Your task to perform on an android device: find which apps use the phone's location Image 0: 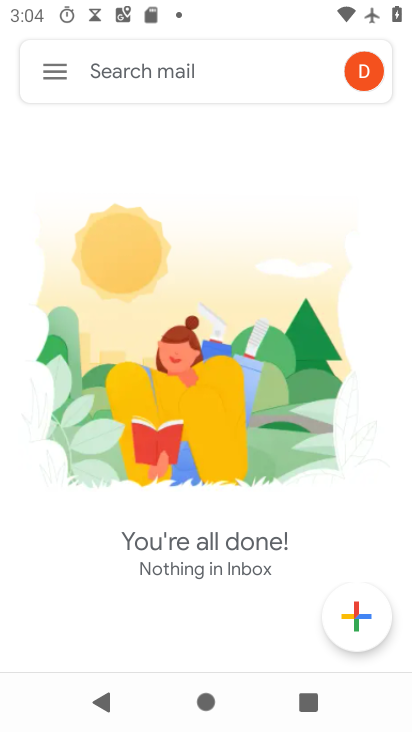
Step 0: press home button
Your task to perform on an android device: find which apps use the phone's location Image 1: 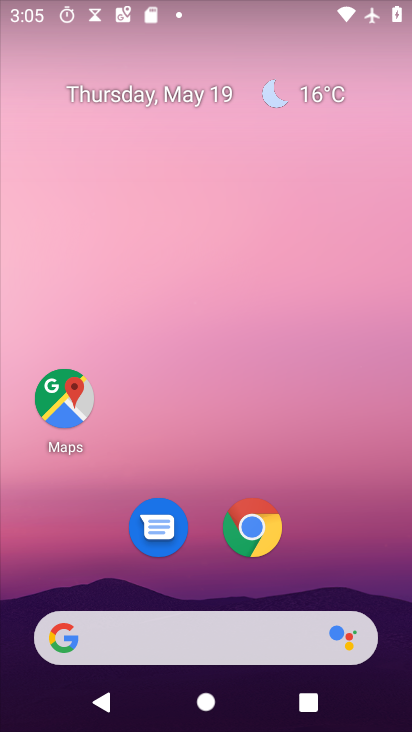
Step 1: drag from (329, 557) to (170, 16)
Your task to perform on an android device: find which apps use the phone's location Image 2: 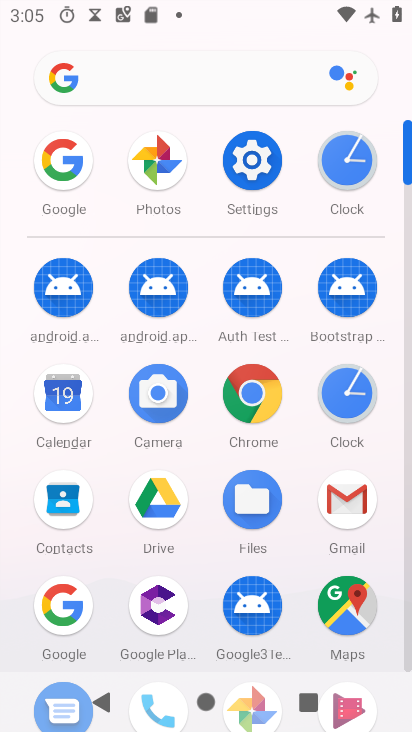
Step 2: click (257, 168)
Your task to perform on an android device: find which apps use the phone's location Image 3: 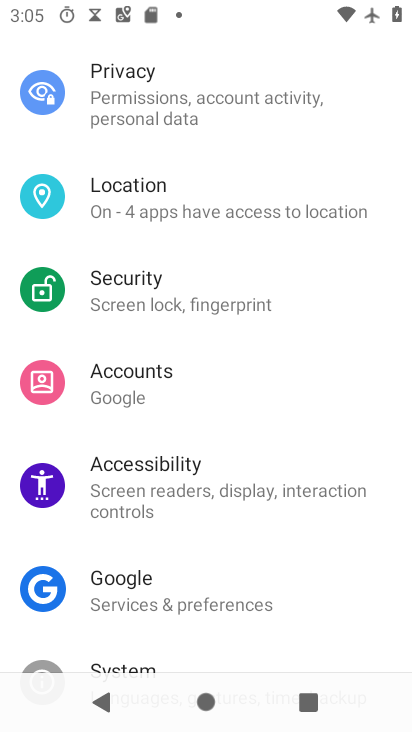
Step 3: click (180, 211)
Your task to perform on an android device: find which apps use the phone's location Image 4: 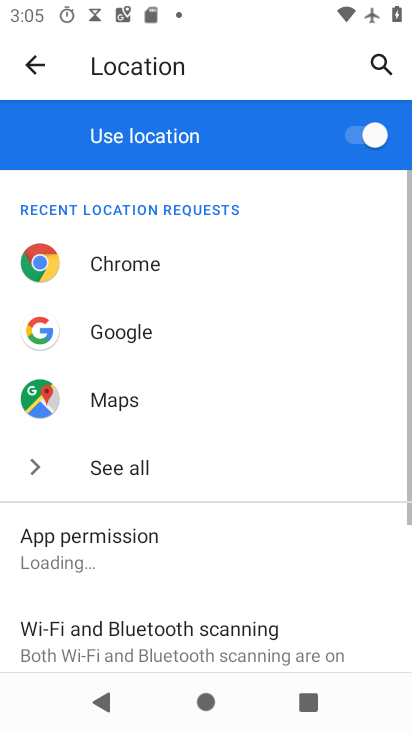
Step 4: click (181, 563)
Your task to perform on an android device: find which apps use the phone's location Image 5: 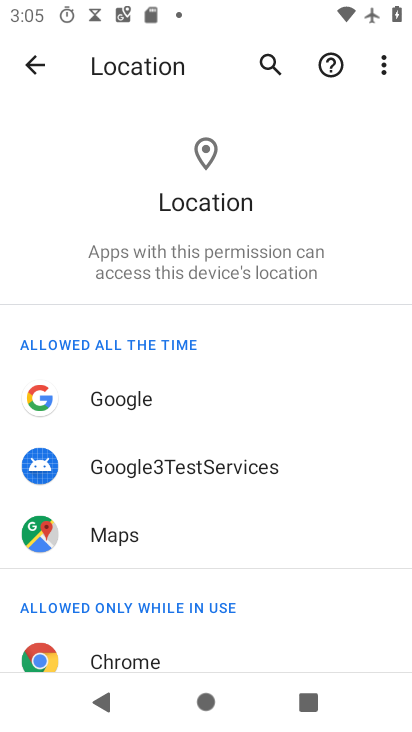
Step 5: task complete